Your task to perform on an android device: Go to accessibility settings Image 0: 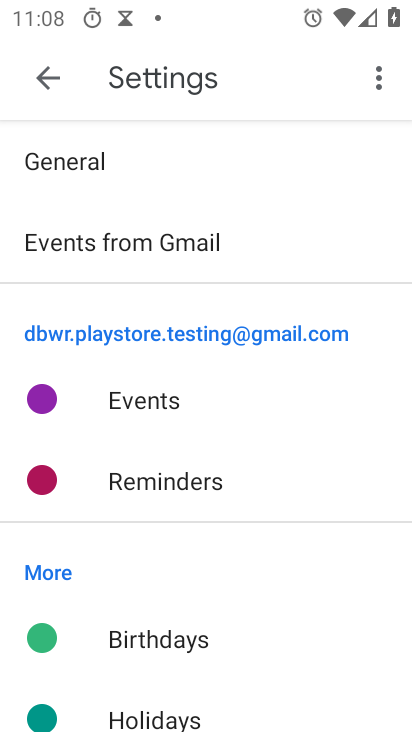
Step 0: click (48, 68)
Your task to perform on an android device: Go to accessibility settings Image 1: 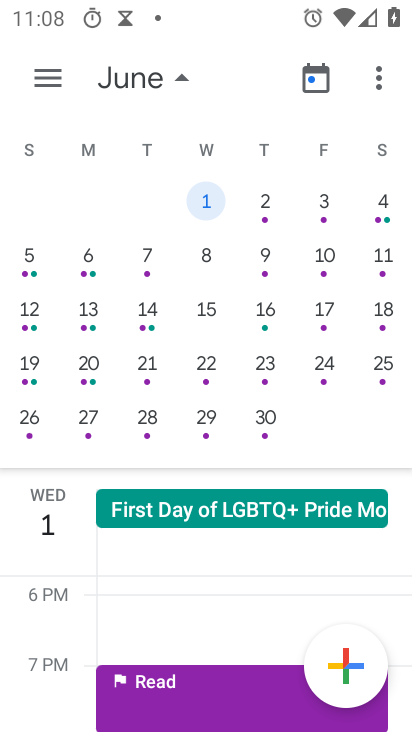
Step 1: press back button
Your task to perform on an android device: Go to accessibility settings Image 2: 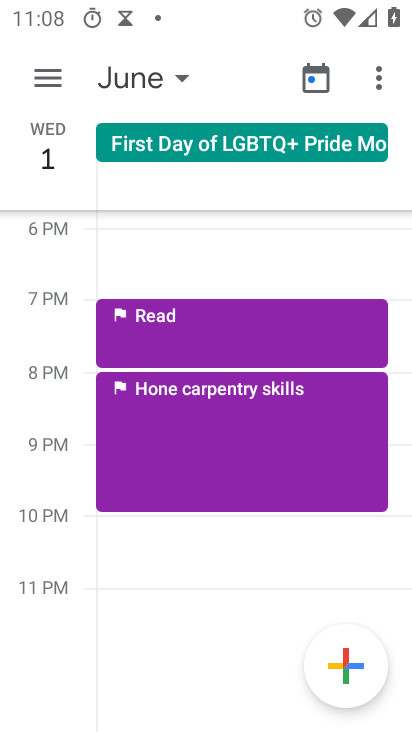
Step 2: press home button
Your task to perform on an android device: Go to accessibility settings Image 3: 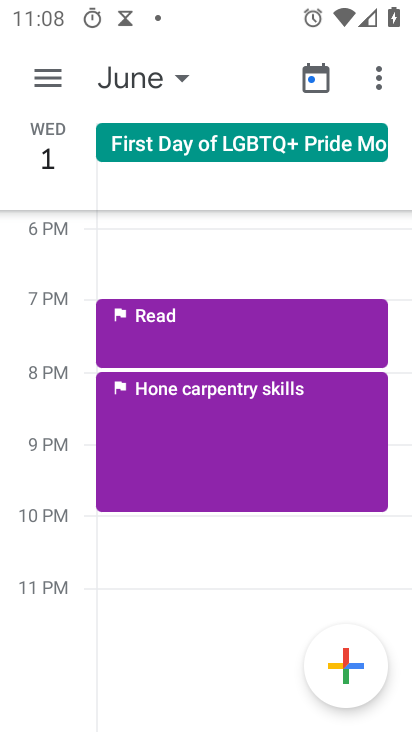
Step 3: press home button
Your task to perform on an android device: Go to accessibility settings Image 4: 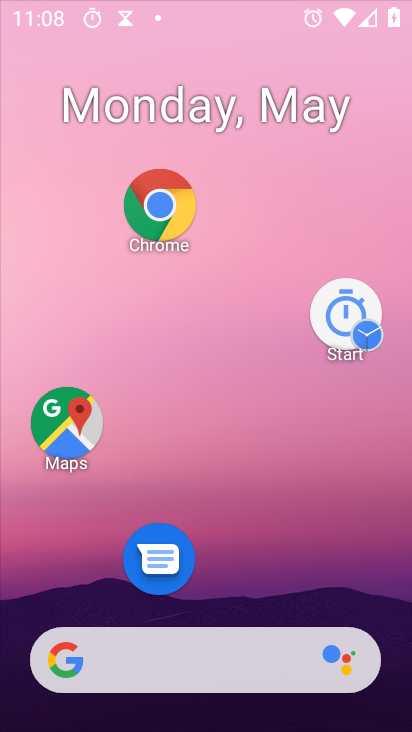
Step 4: press home button
Your task to perform on an android device: Go to accessibility settings Image 5: 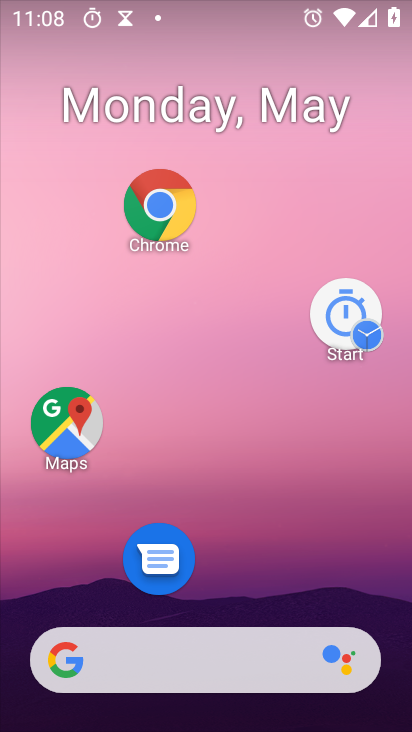
Step 5: drag from (238, 711) to (117, 48)
Your task to perform on an android device: Go to accessibility settings Image 6: 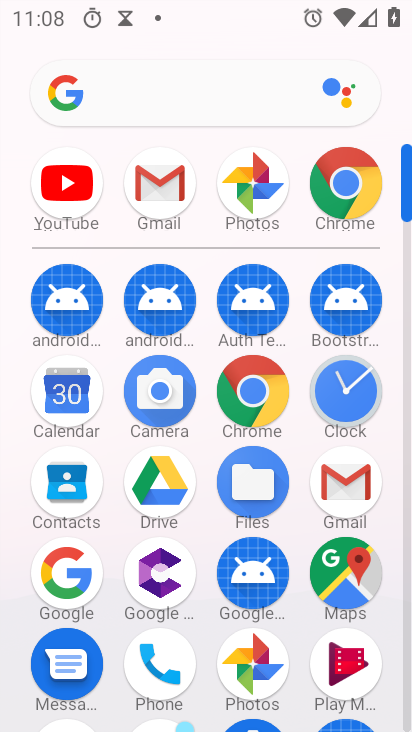
Step 6: drag from (204, 514) to (177, 324)
Your task to perform on an android device: Go to accessibility settings Image 7: 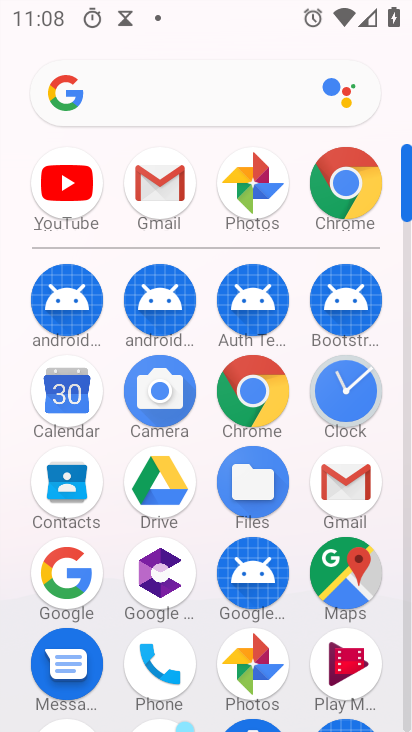
Step 7: drag from (174, 535) to (175, 208)
Your task to perform on an android device: Go to accessibility settings Image 8: 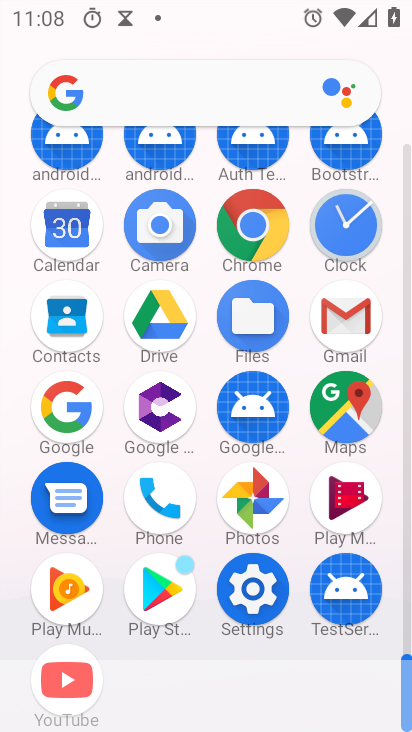
Step 8: drag from (197, 479) to (180, 180)
Your task to perform on an android device: Go to accessibility settings Image 9: 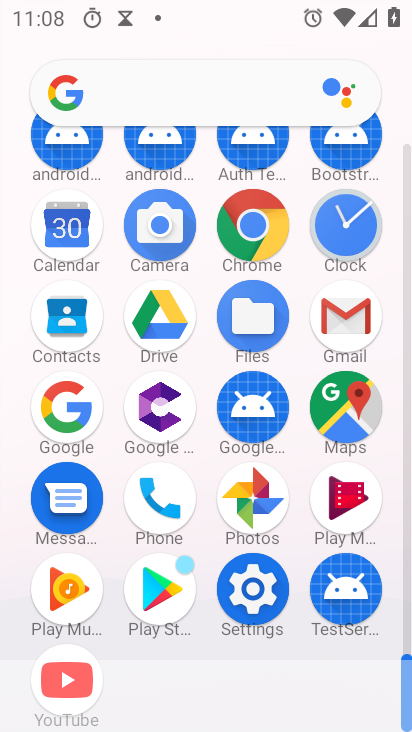
Step 9: click (252, 590)
Your task to perform on an android device: Go to accessibility settings Image 10: 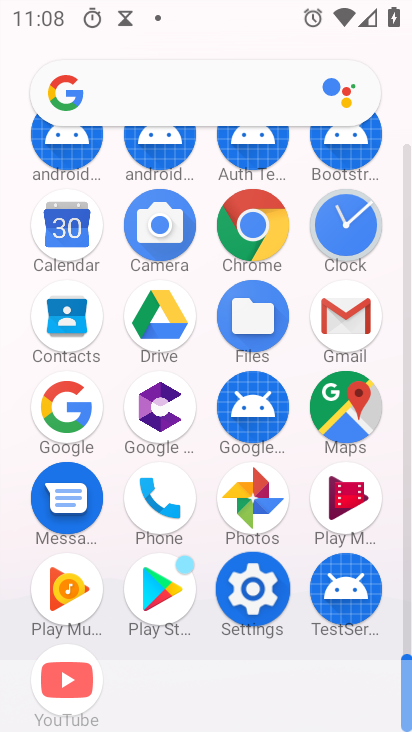
Step 10: click (252, 590)
Your task to perform on an android device: Go to accessibility settings Image 11: 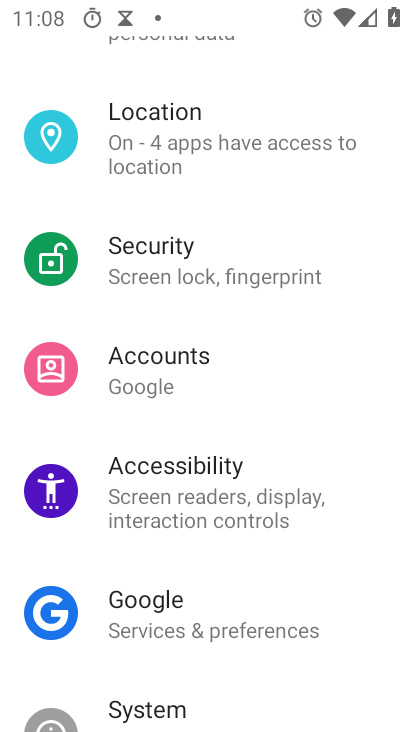
Step 11: click (174, 492)
Your task to perform on an android device: Go to accessibility settings Image 12: 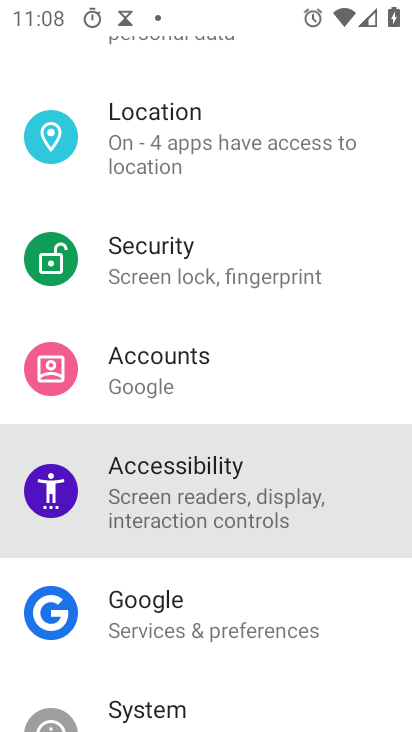
Step 12: click (174, 492)
Your task to perform on an android device: Go to accessibility settings Image 13: 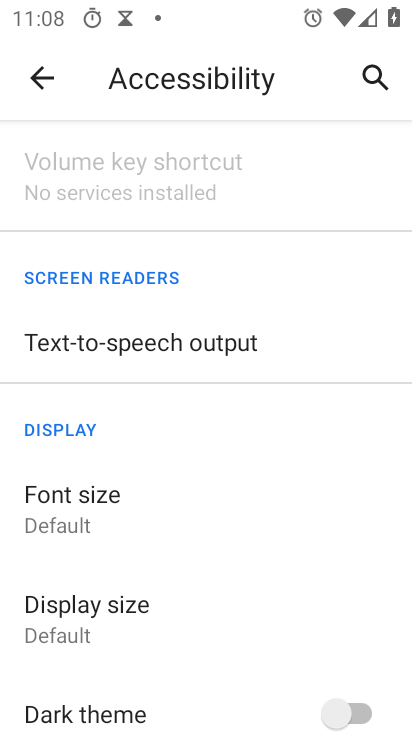
Step 13: drag from (144, 556) to (131, 205)
Your task to perform on an android device: Go to accessibility settings Image 14: 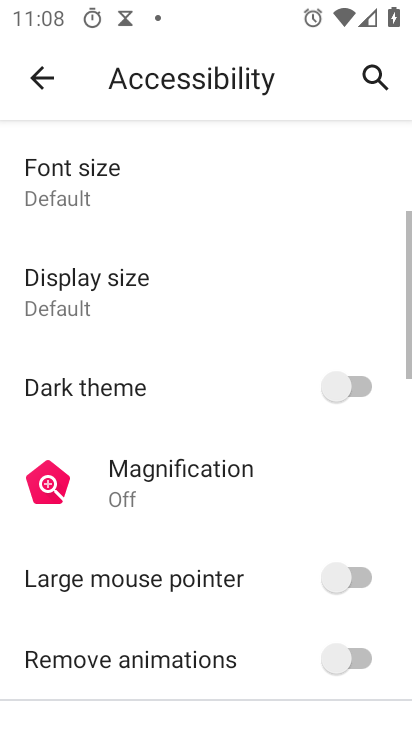
Step 14: drag from (132, 477) to (130, 228)
Your task to perform on an android device: Go to accessibility settings Image 15: 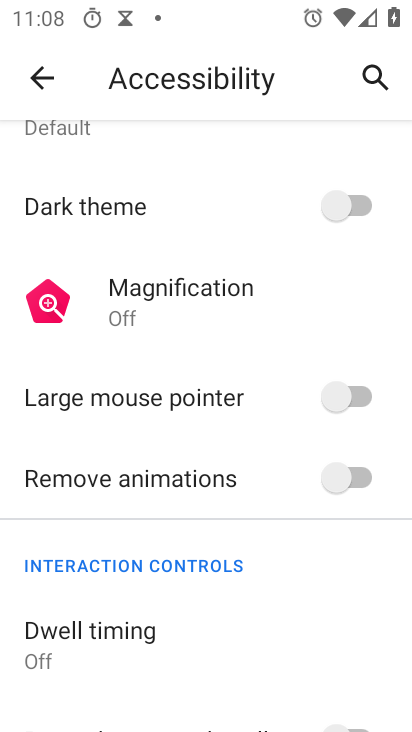
Step 15: drag from (93, 193) to (164, 573)
Your task to perform on an android device: Go to accessibility settings Image 16: 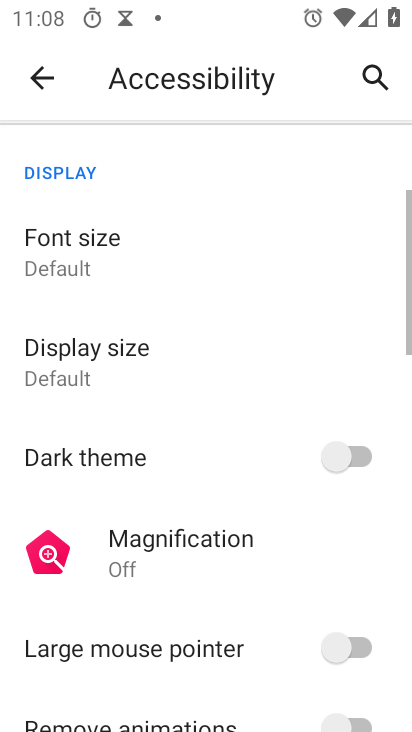
Step 16: drag from (106, 248) to (117, 595)
Your task to perform on an android device: Go to accessibility settings Image 17: 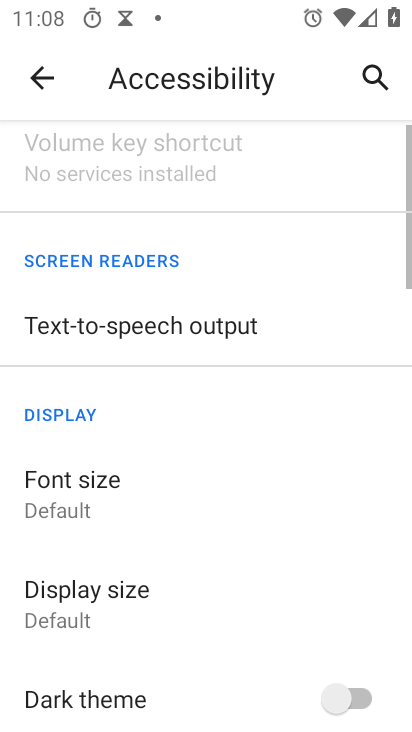
Step 17: drag from (117, 306) to (149, 590)
Your task to perform on an android device: Go to accessibility settings Image 18: 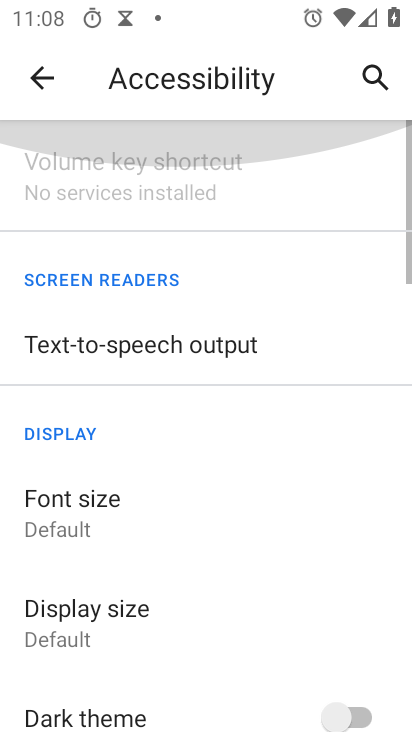
Step 18: drag from (111, 266) to (111, 596)
Your task to perform on an android device: Go to accessibility settings Image 19: 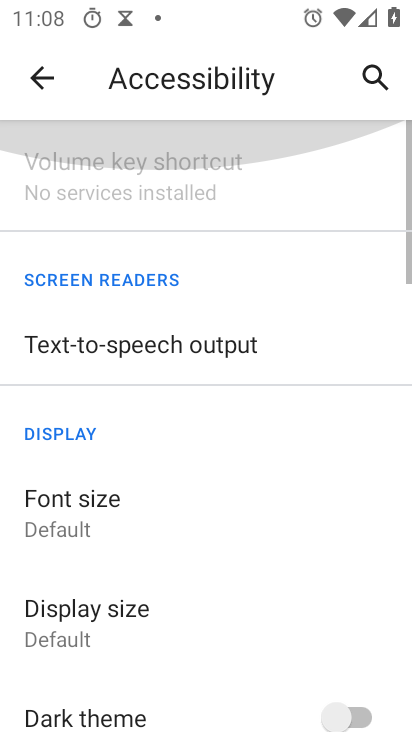
Step 19: drag from (110, 286) to (143, 648)
Your task to perform on an android device: Go to accessibility settings Image 20: 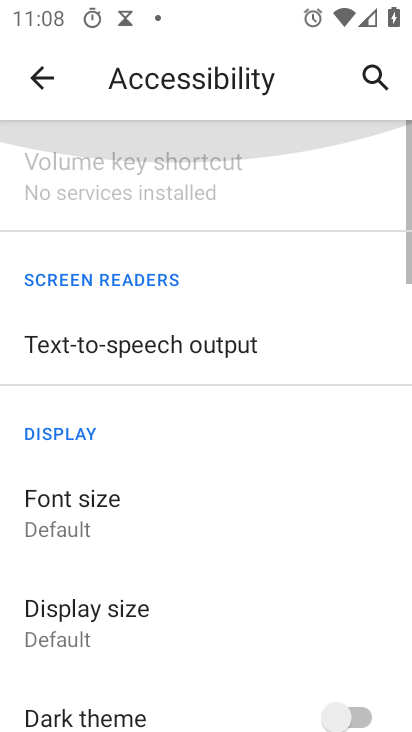
Step 20: drag from (97, 310) to (171, 661)
Your task to perform on an android device: Go to accessibility settings Image 21: 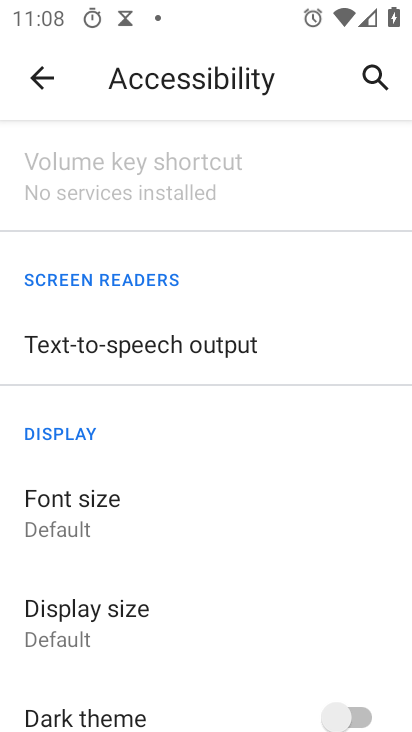
Step 21: click (34, 71)
Your task to perform on an android device: Go to accessibility settings Image 22: 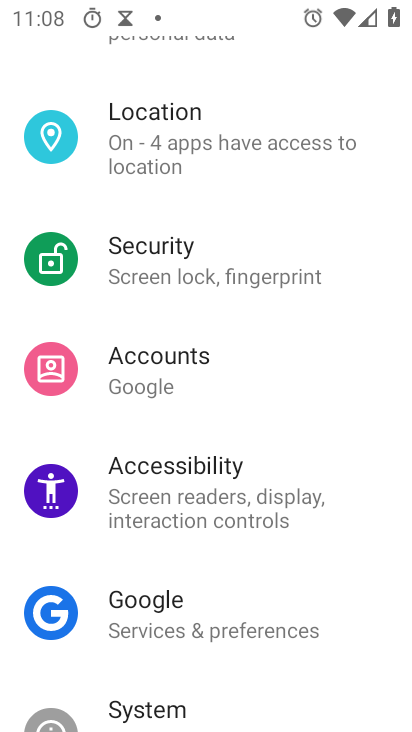
Step 22: click (143, 485)
Your task to perform on an android device: Go to accessibility settings Image 23: 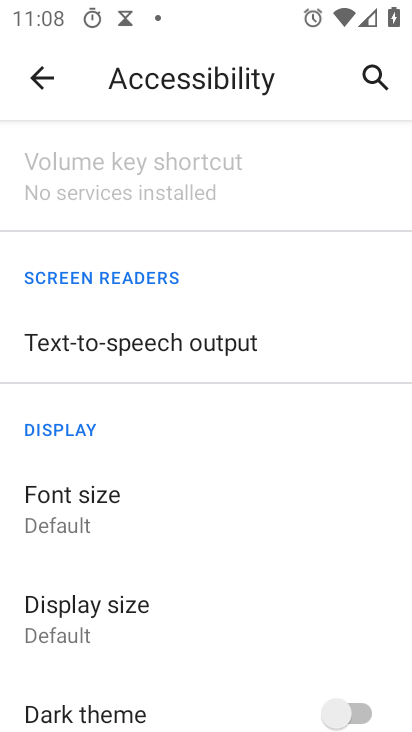
Step 23: task complete